Your task to perform on an android device: Show me the alarms in the clock app Image 0: 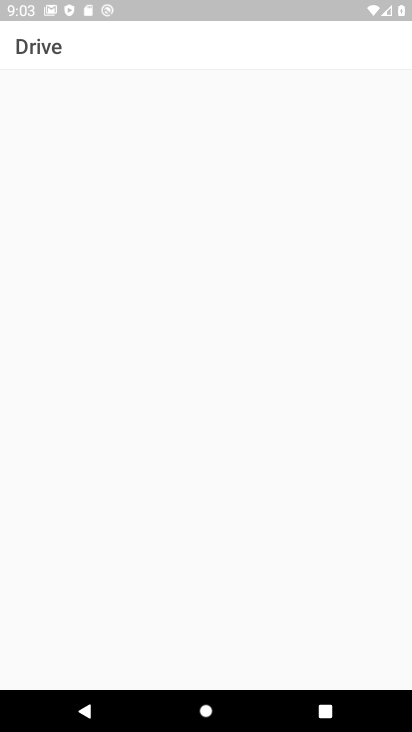
Step 0: press home button
Your task to perform on an android device: Show me the alarms in the clock app Image 1: 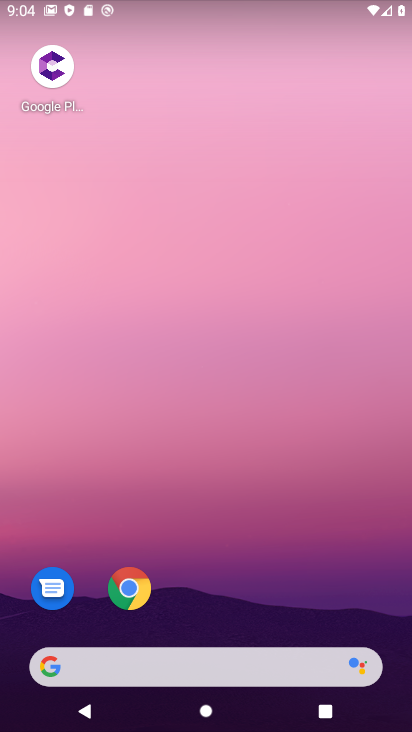
Step 1: drag from (263, 564) to (270, 5)
Your task to perform on an android device: Show me the alarms in the clock app Image 2: 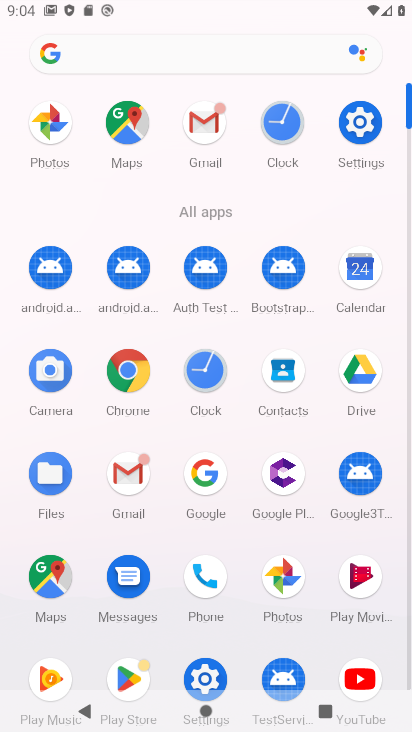
Step 2: click (280, 191)
Your task to perform on an android device: Show me the alarms in the clock app Image 3: 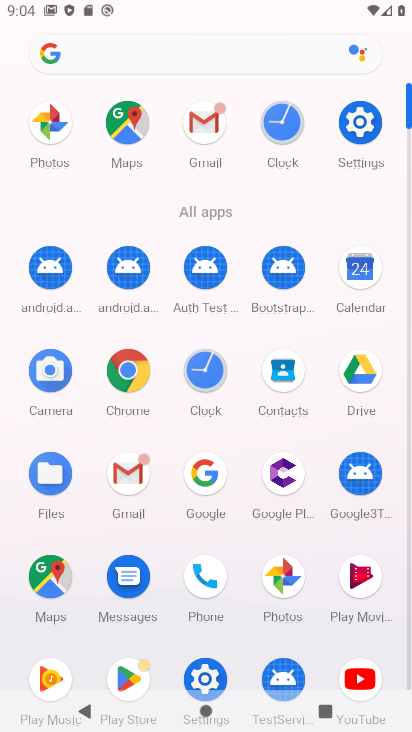
Step 3: click (285, 135)
Your task to perform on an android device: Show me the alarms in the clock app Image 4: 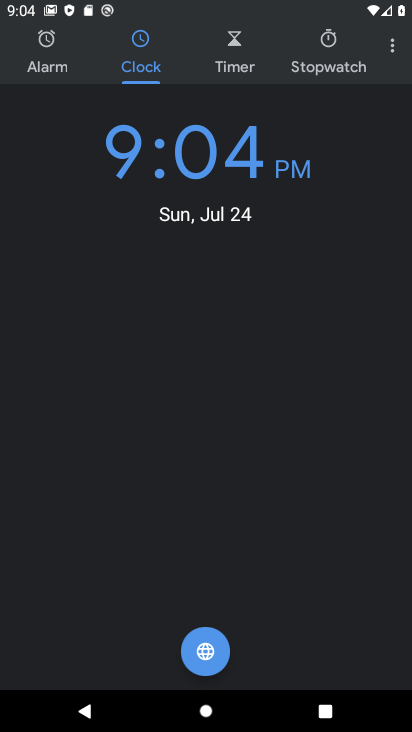
Step 4: click (57, 69)
Your task to perform on an android device: Show me the alarms in the clock app Image 5: 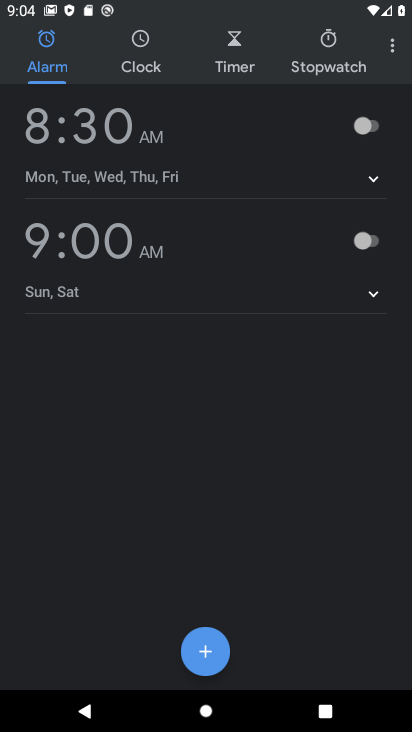
Step 5: task complete